Your task to perform on an android device: Clear the cart on bestbuy. Search for "jbl charge 4" on bestbuy, select the first entry, add it to the cart, then select checkout. Image 0: 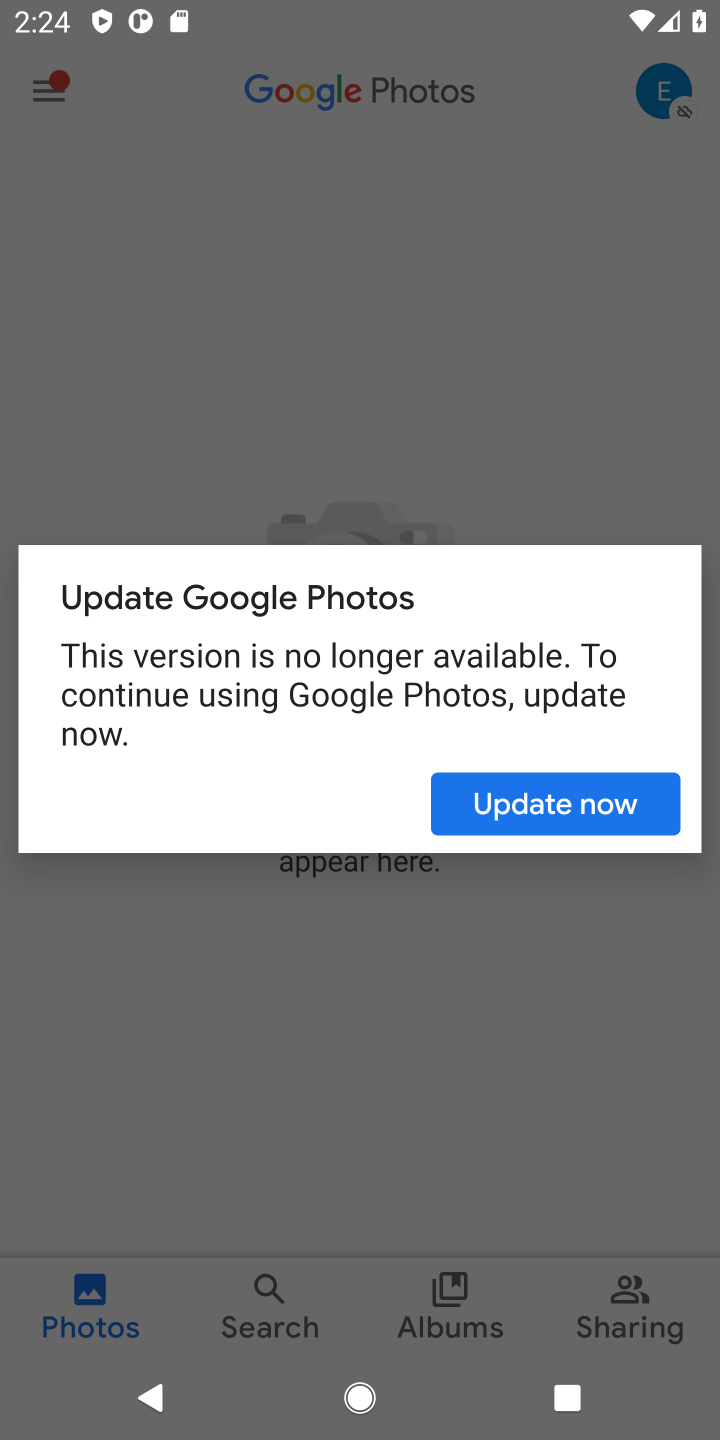
Step 0: press home button
Your task to perform on an android device: Clear the cart on bestbuy. Search for "jbl charge 4" on bestbuy, select the first entry, add it to the cart, then select checkout. Image 1: 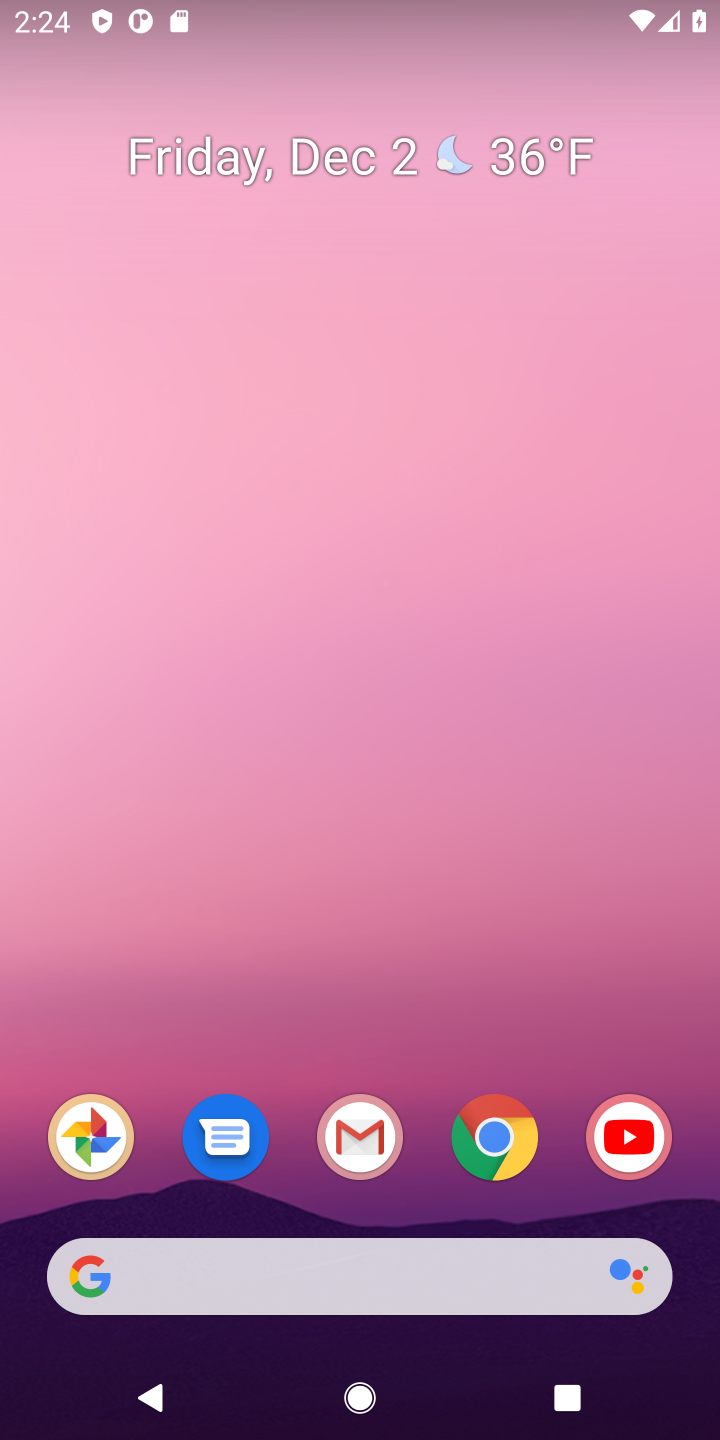
Step 1: drag from (265, 1283) to (277, 358)
Your task to perform on an android device: Clear the cart on bestbuy. Search for "jbl charge 4" on bestbuy, select the first entry, add it to the cart, then select checkout. Image 2: 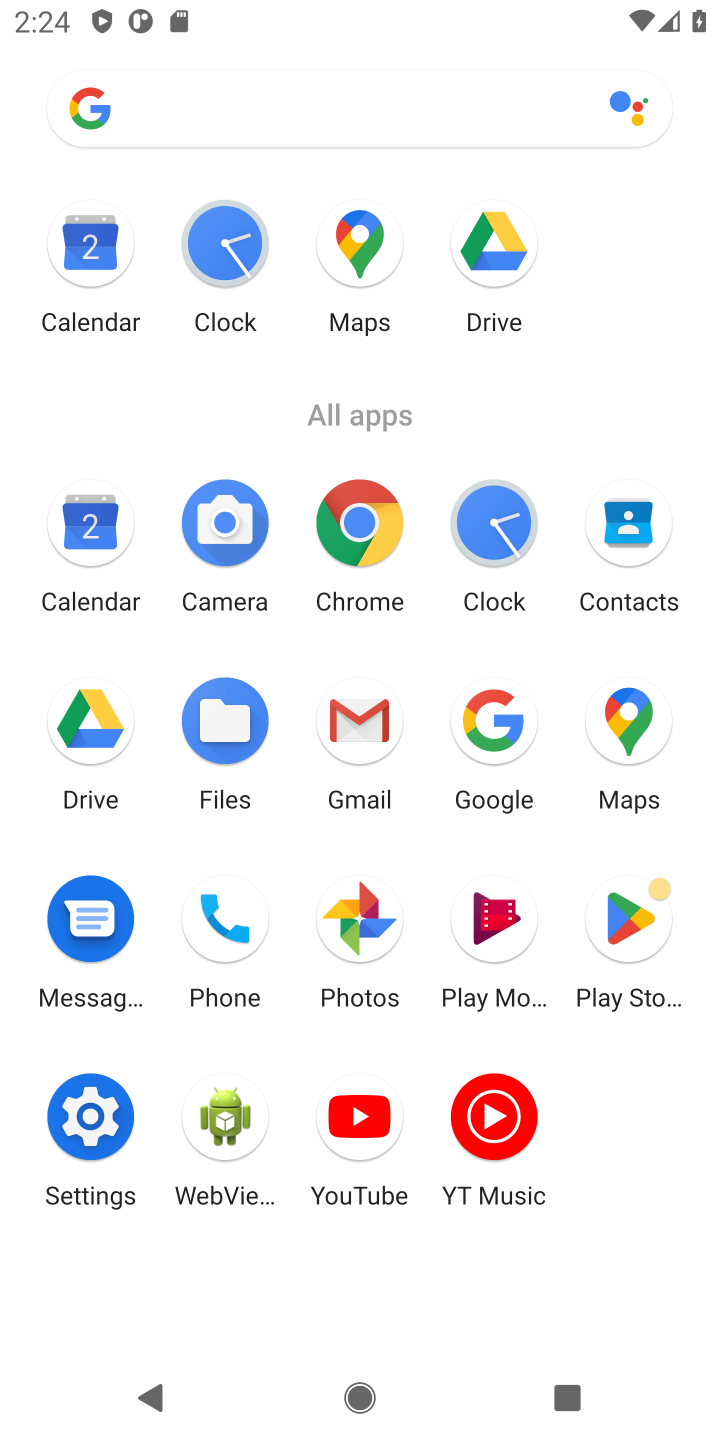
Step 2: click (502, 724)
Your task to perform on an android device: Clear the cart on bestbuy. Search for "jbl charge 4" on bestbuy, select the first entry, add it to the cart, then select checkout. Image 3: 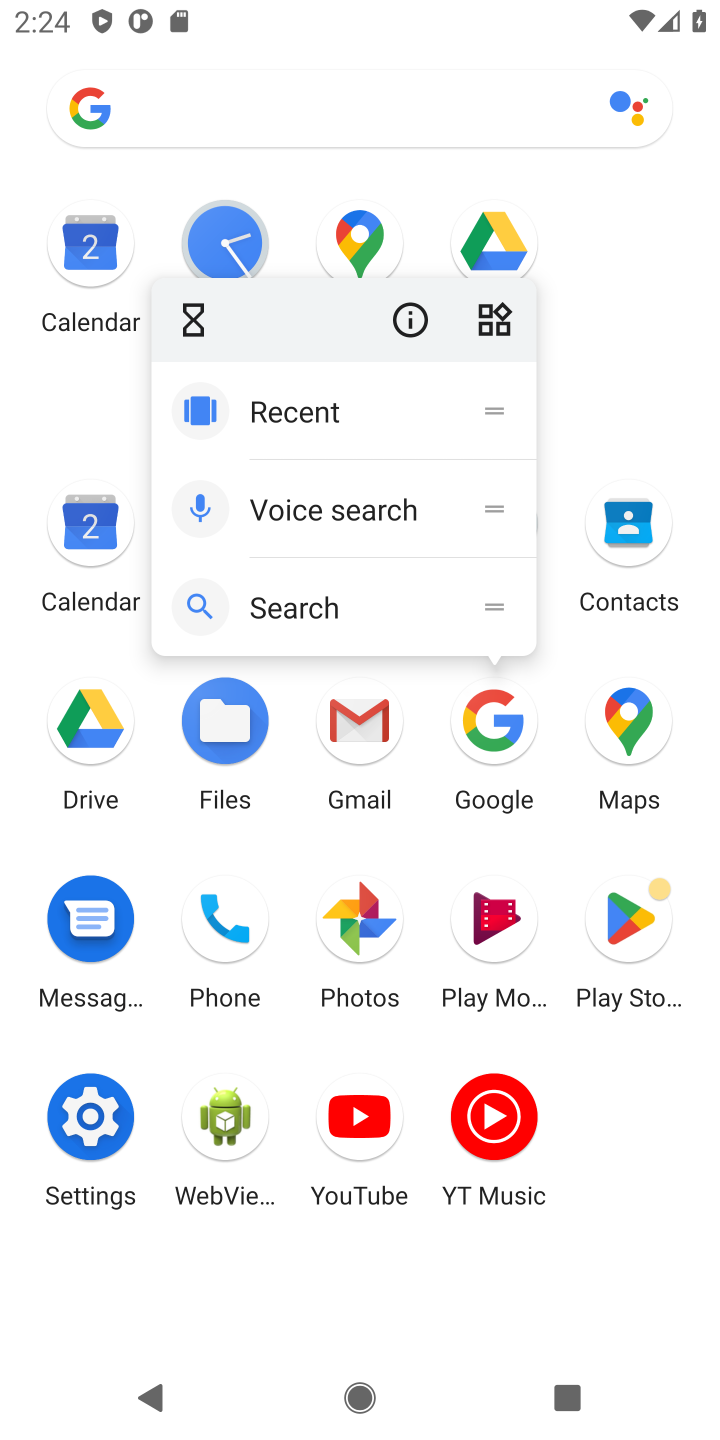
Step 3: click (486, 722)
Your task to perform on an android device: Clear the cart on bestbuy. Search for "jbl charge 4" on bestbuy, select the first entry, add it to the cart, then select checkout. Image 4: 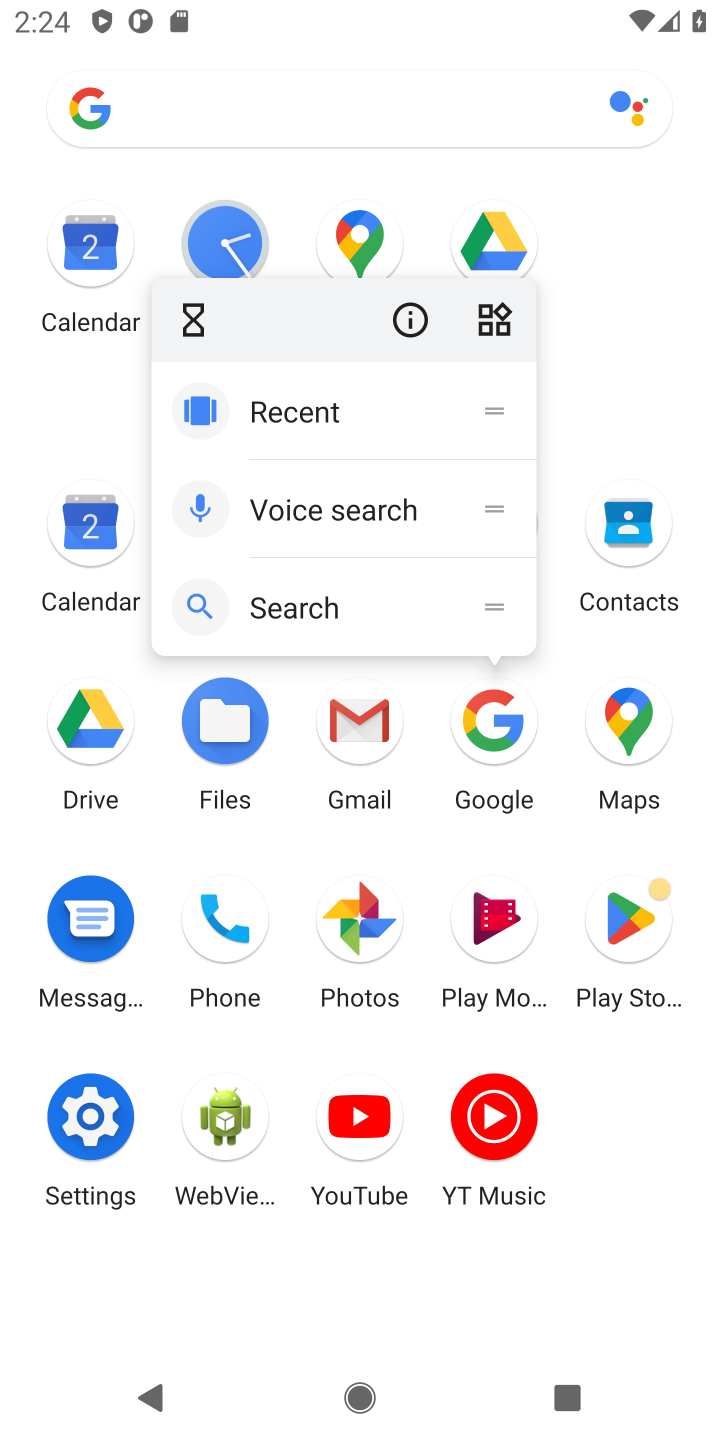
Step 4: click (486, 733)
Your task to perform on an android device: Clear the cart on bestbuy. Search for "jbl charge 4" on bestbuy, select the first entry, add it to the cart, then select checkout. Image 5: 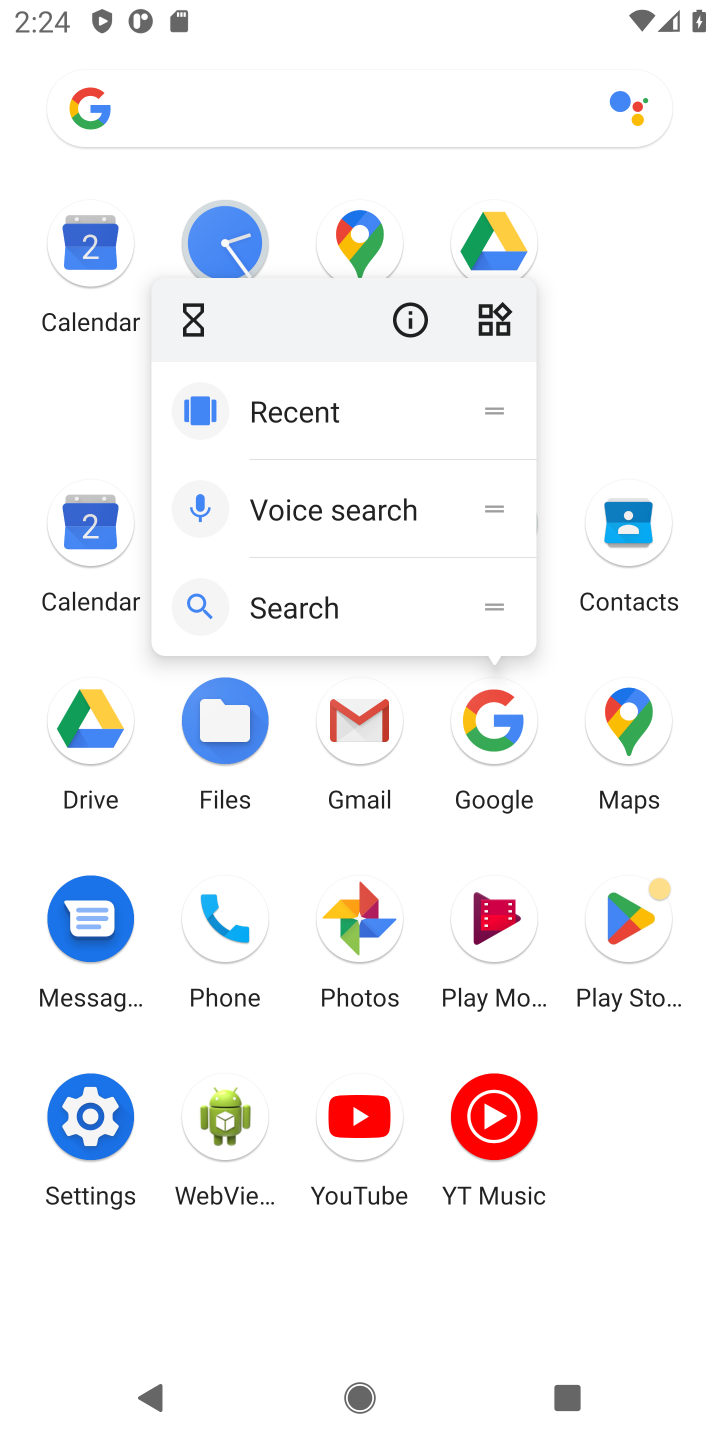
Step 5: click (486, 736)
Your task to perform on an android device: Clear the cart on bestbuy. Search for "jbl charge 4" on bestbuy, select the first entry, add it to the cart, then select checkout. Image 6: 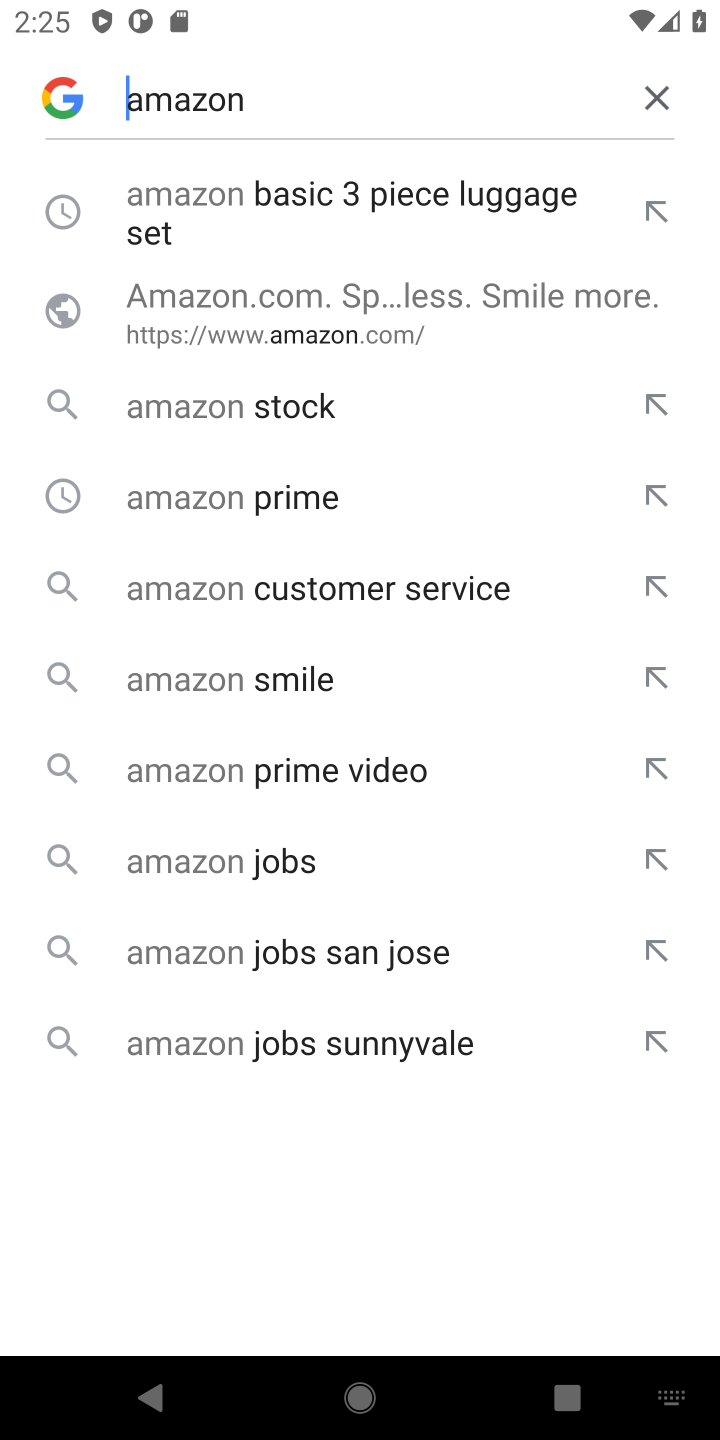
Step 6: click (656, 118)
Your task to perform on an android device: Clear the cart on bestbuy. Search for "jbl charge 4" on bestbuy, select the first entry, add it to the cart, then select checkout. Image 7: 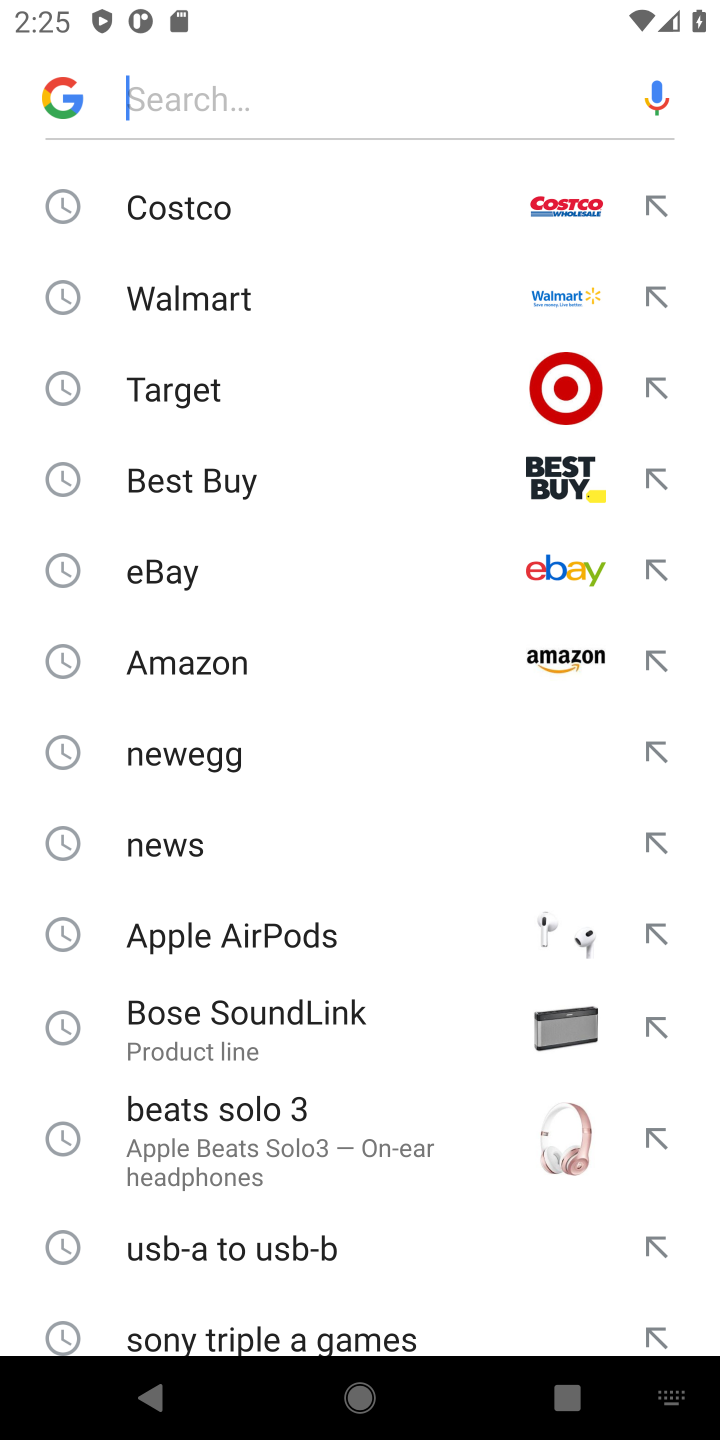
Step 7: click (234, 473)
Your task to perform on an android device: Clear the cart on bestbuy. Search for "jbl charge 4" on bestbuy, select the first entry, add it to the cart, then select checkout. Image 8: 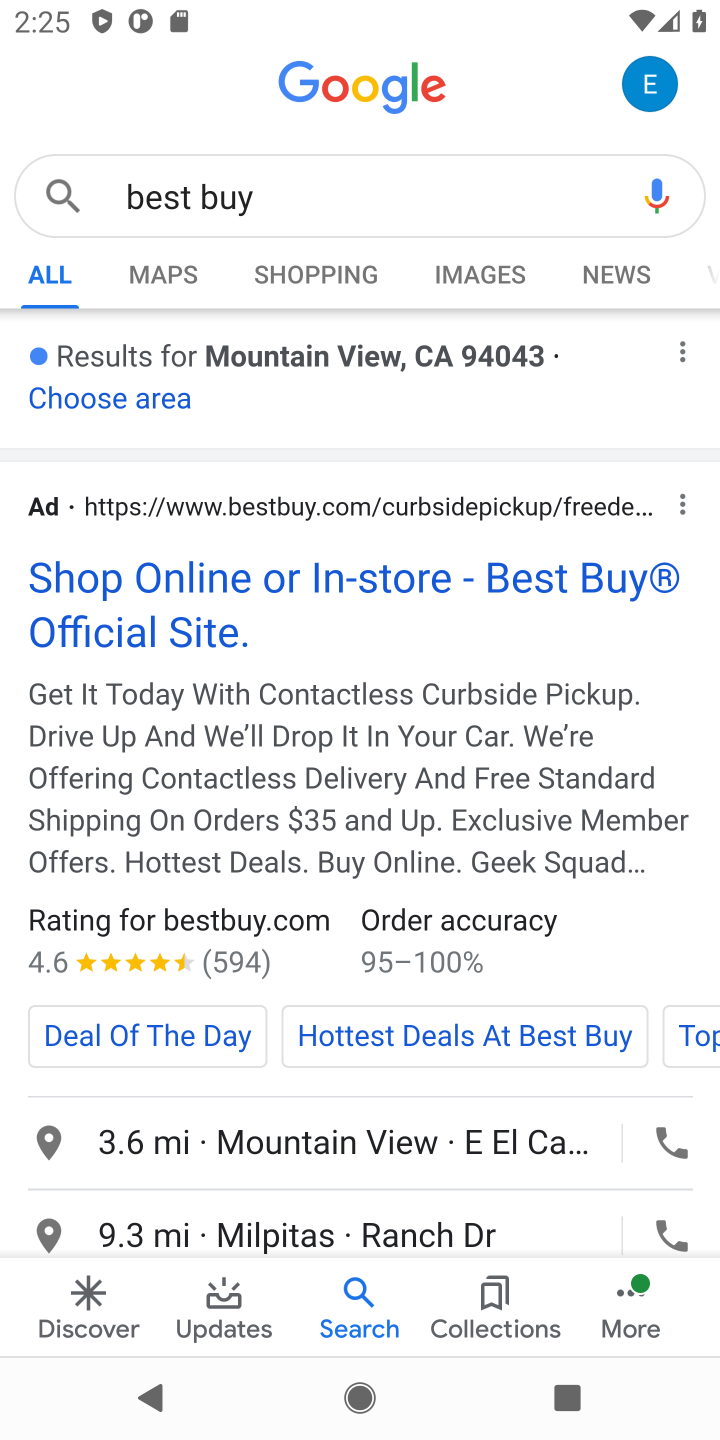
Step 8: click (219, 624)
Your task to perform on an android device: Clear the cart on bestbuy. Search for "jbl charge 4" on bestbuy, select the first entry, add it to the cart, then select checkout. Image 9: 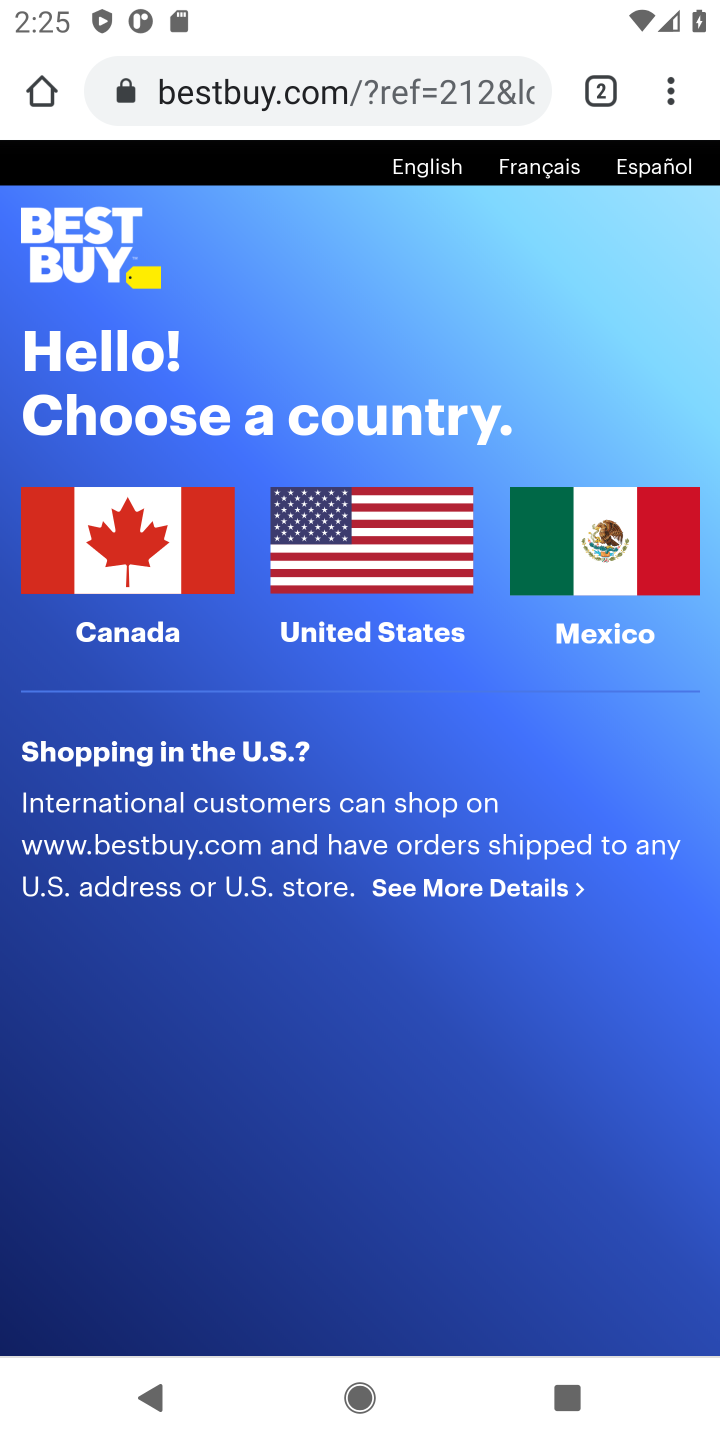
Step 9: click (380, 580)
Your task to perform on an android device: Clear the cart on bestbuy. Search for "jbl charge 4" on bestbuy, select the first entry, add it to the cart, then select checkout. Image 10: 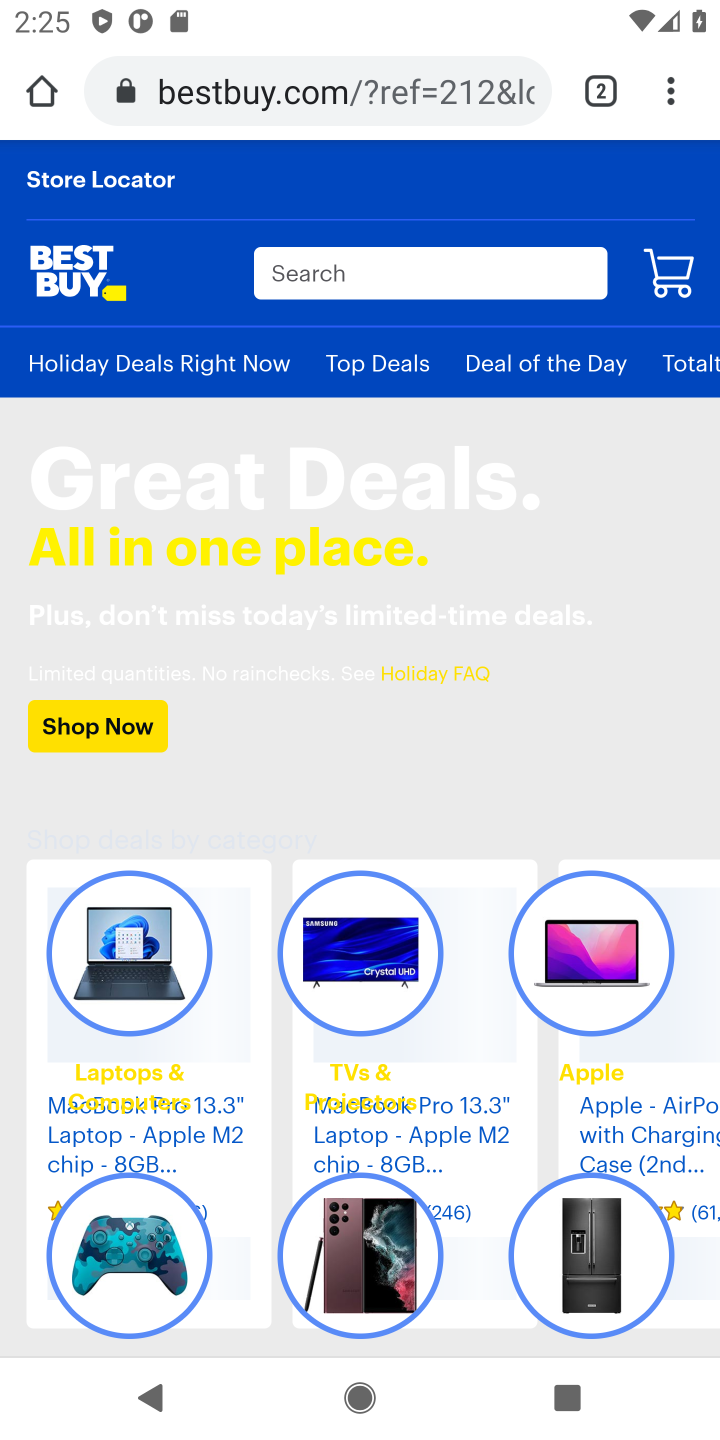
Step 10: click (285, 269)
Your task to perform on an android device: Clear the cart on bestbuy. Search for "jbl charge 4" on bestbuy, select the first entry, add it to the cart, then select checkout. Image 11: 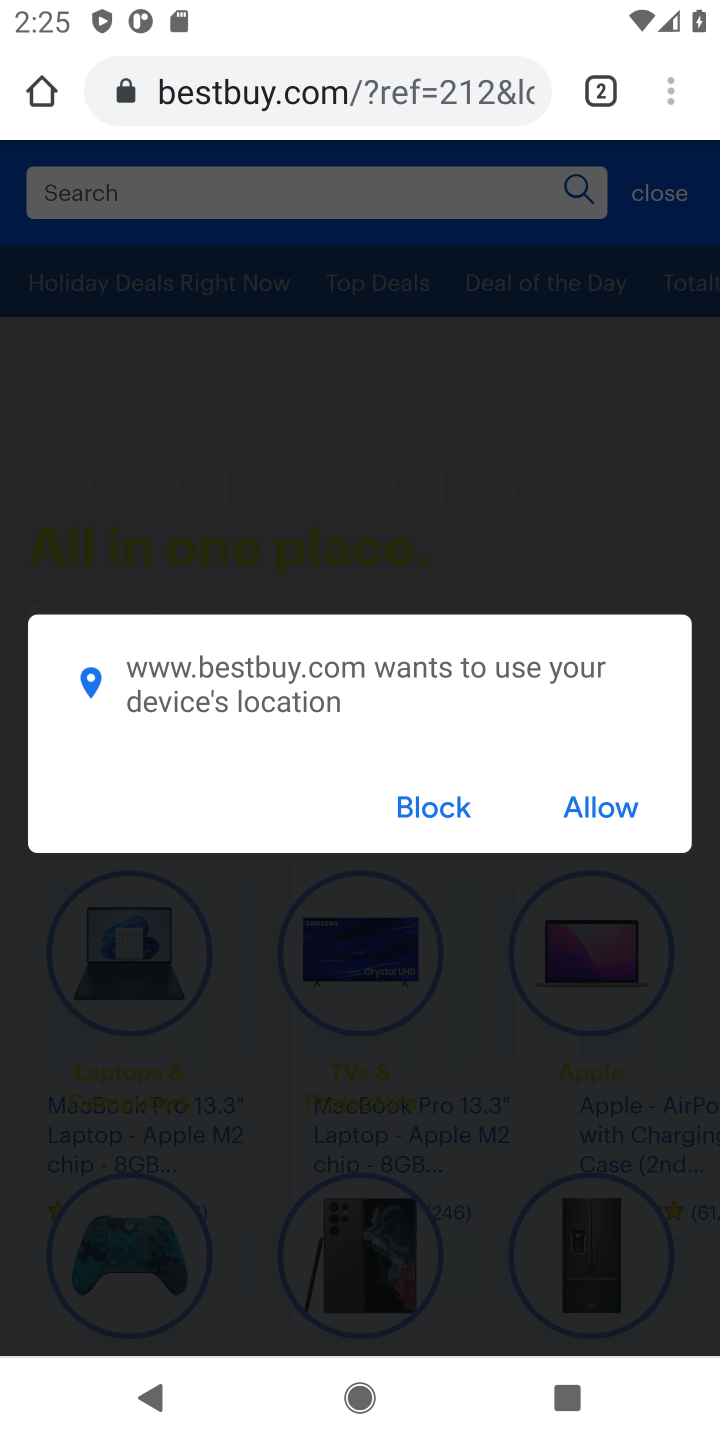
Step 11: click (634, 814)
Your task to perform on an android device: Clear the cart on bestbuy. Search for "jbl charge 4" on bestbuy, select the first entry, add it to the cart, then select checkout. Image 12: 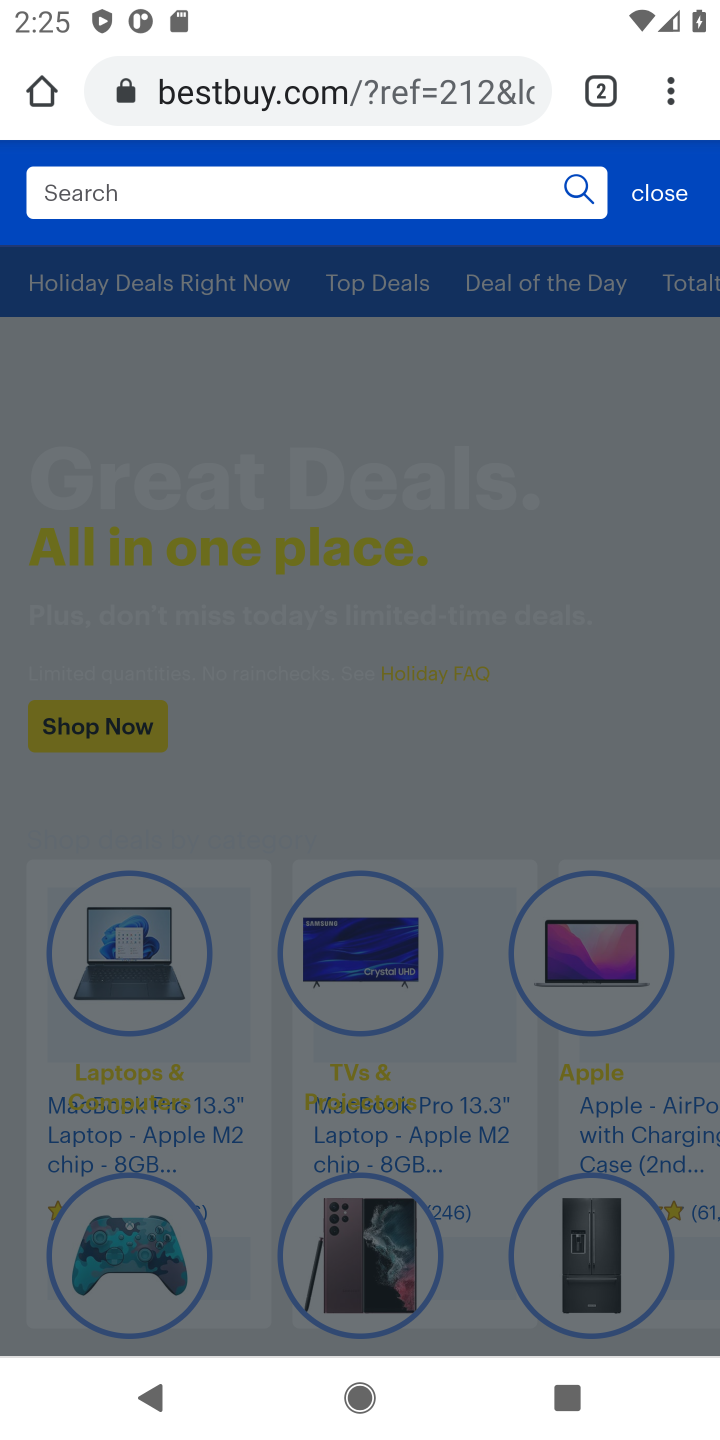
Step 12: click (50, 200)
Your task to perform on an android device: Clear the cart on bestbuy. Search for "jbl charge 4" on bestbuy, select the first entry, add it to the cart, then select checkout. Image 13: 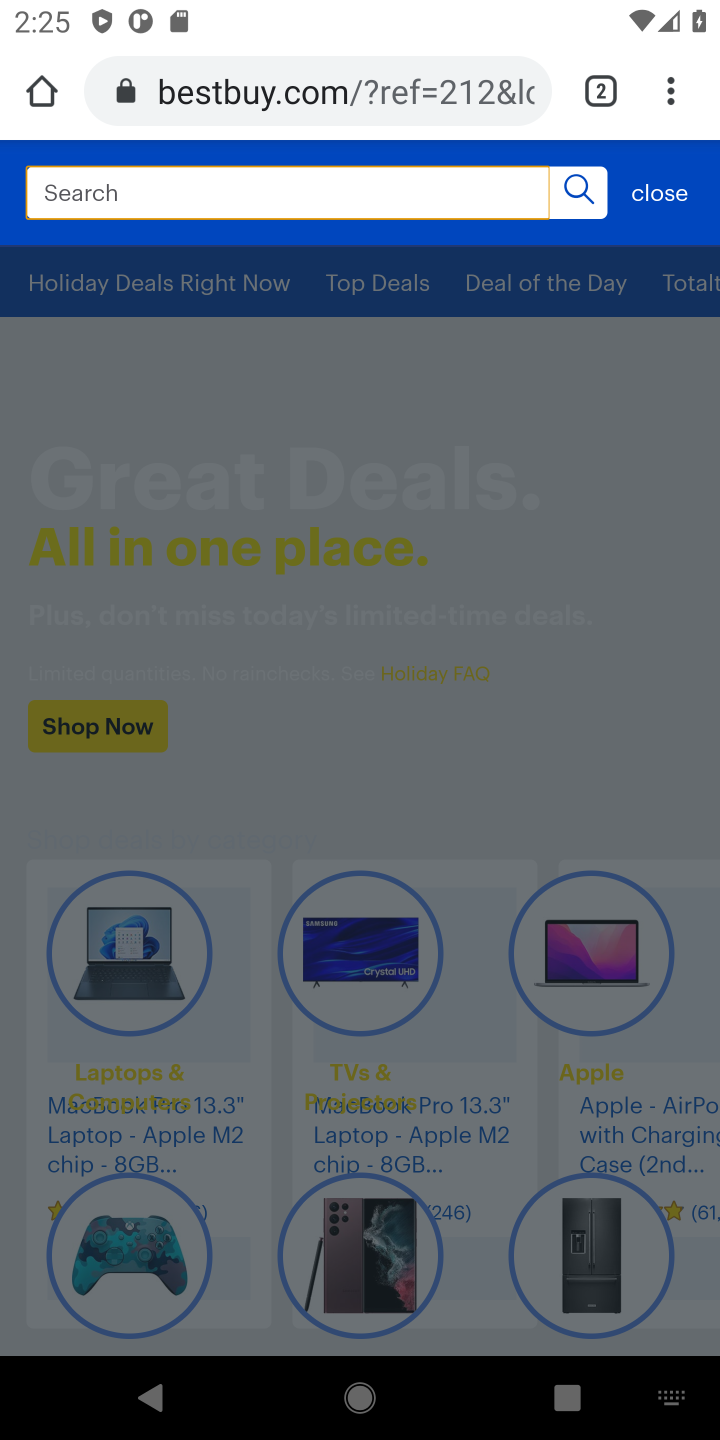
Step 13: type "jbl charge 4"
Your task to perform on an android device: Clear the cart on bestbuy. Search for "jbl charge 4" on bestbuy, select the first entry, add it to the cart, then select checkout. Image 14: 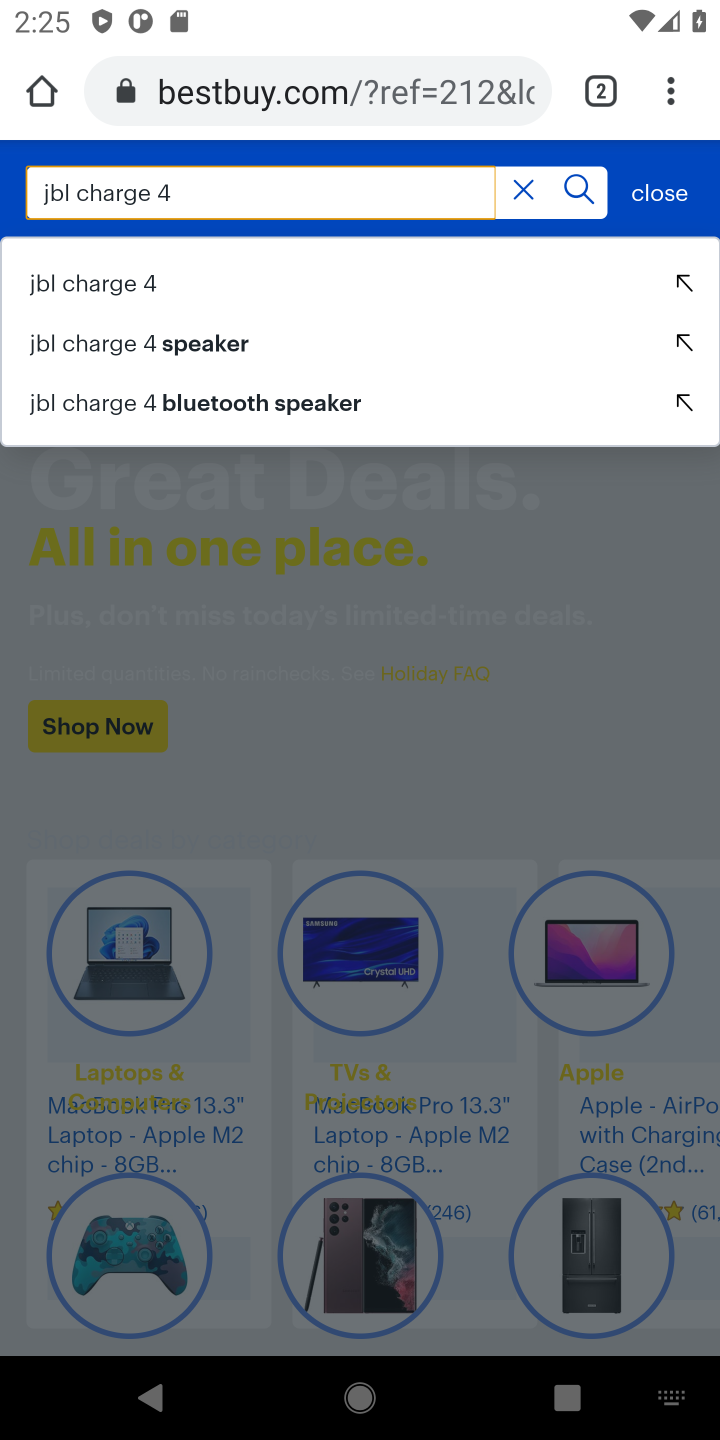
Step 14: click (110, 282)
Your task to perform on an android device: Clear the cart on bestbuy. Search for "jbl charge 4" on bestbuy, select the first entry, add it to the cart, then select checkout. Image 15: 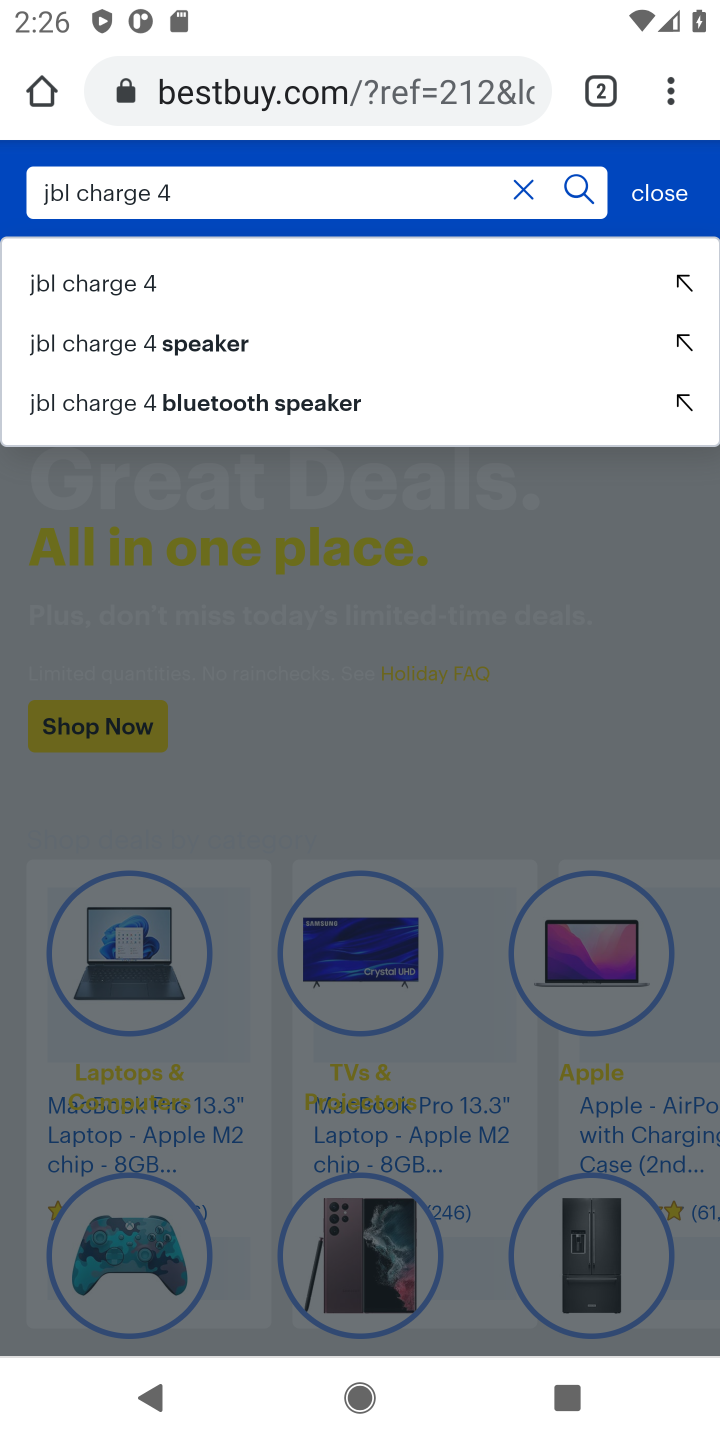
Step 15: click (97, 286)
Your task to perform on an android device: Clear the cart on bestbuy. Search for "jbl charge 4" on bestbuy, select the first entry, add it to the cart, then select checkout. Image 16: 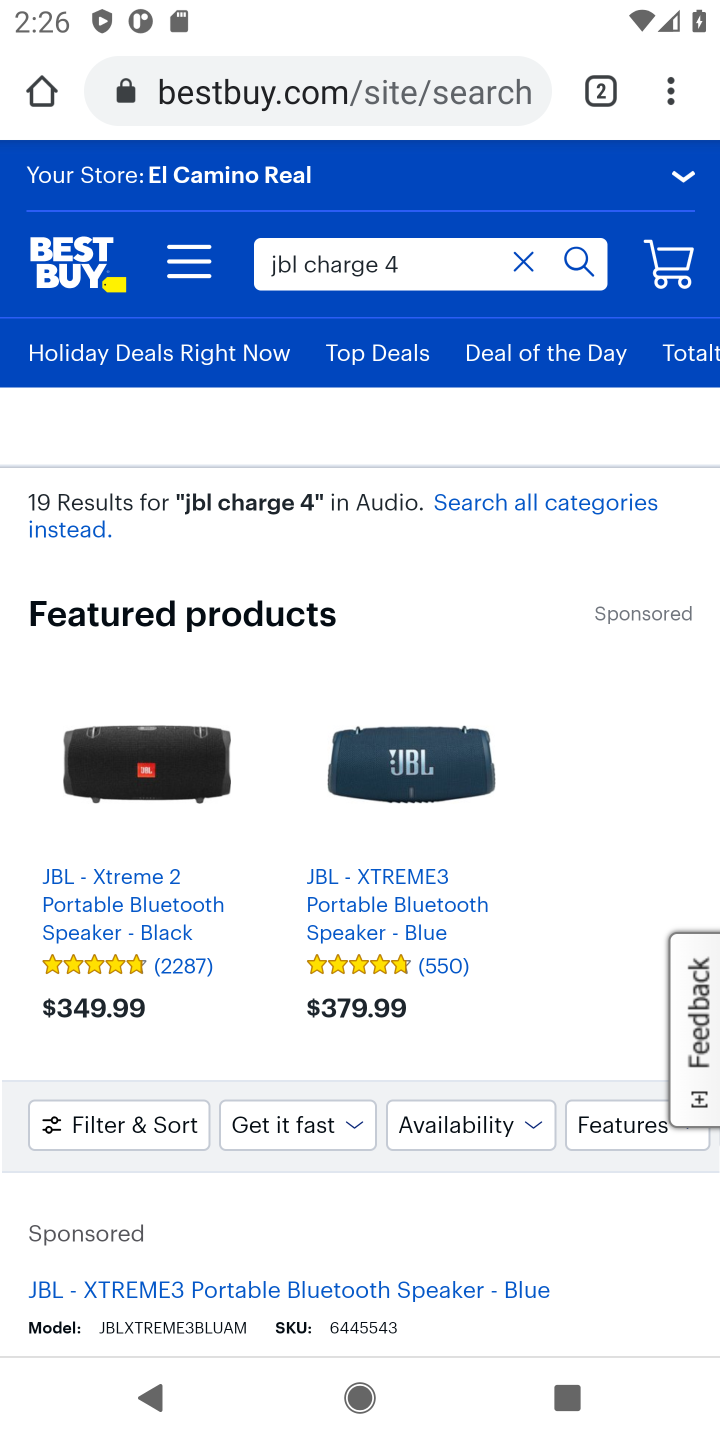
Step 16: drag from (248, 1300) to (233, 712)
Your task to perform on an android device: Clear the cart on bestbuy. Search for "jbl charge 4" on bestbuy, select the first entry, add it to the cart, then select checkout. Image 17: 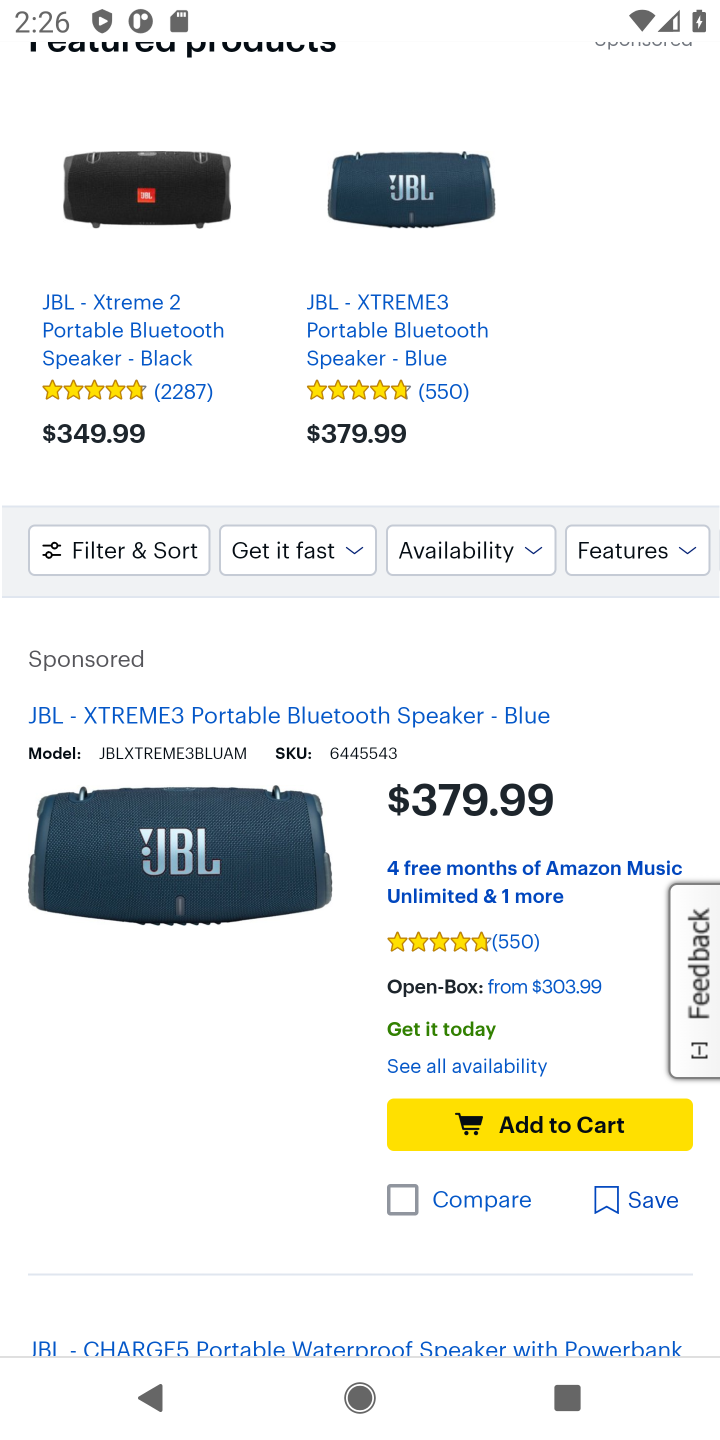
Step 17: click (543, 1116)
Your task to perform on an android device: Clear the cart on bestbuy. Search for "jbl charge 4" on bestbuy, select the first entry, add it to the cart, then select checkout. Image 18: 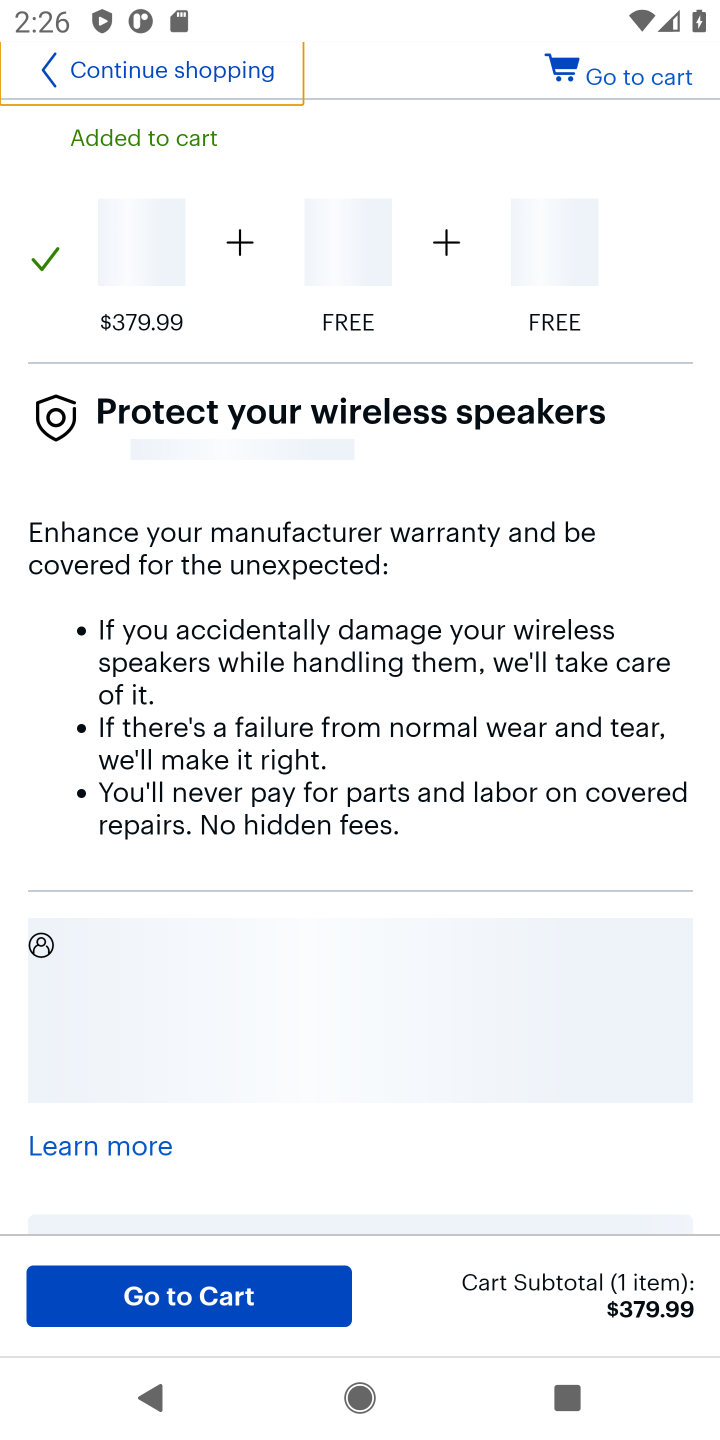
Step 18: click (210, 1292)
Your task to perform on an android device: Clear the cart on bestbuy. Search for "jbl charge 4" on bestbuy, select the first entry, add it to the cart, then select checkout. Image 19: 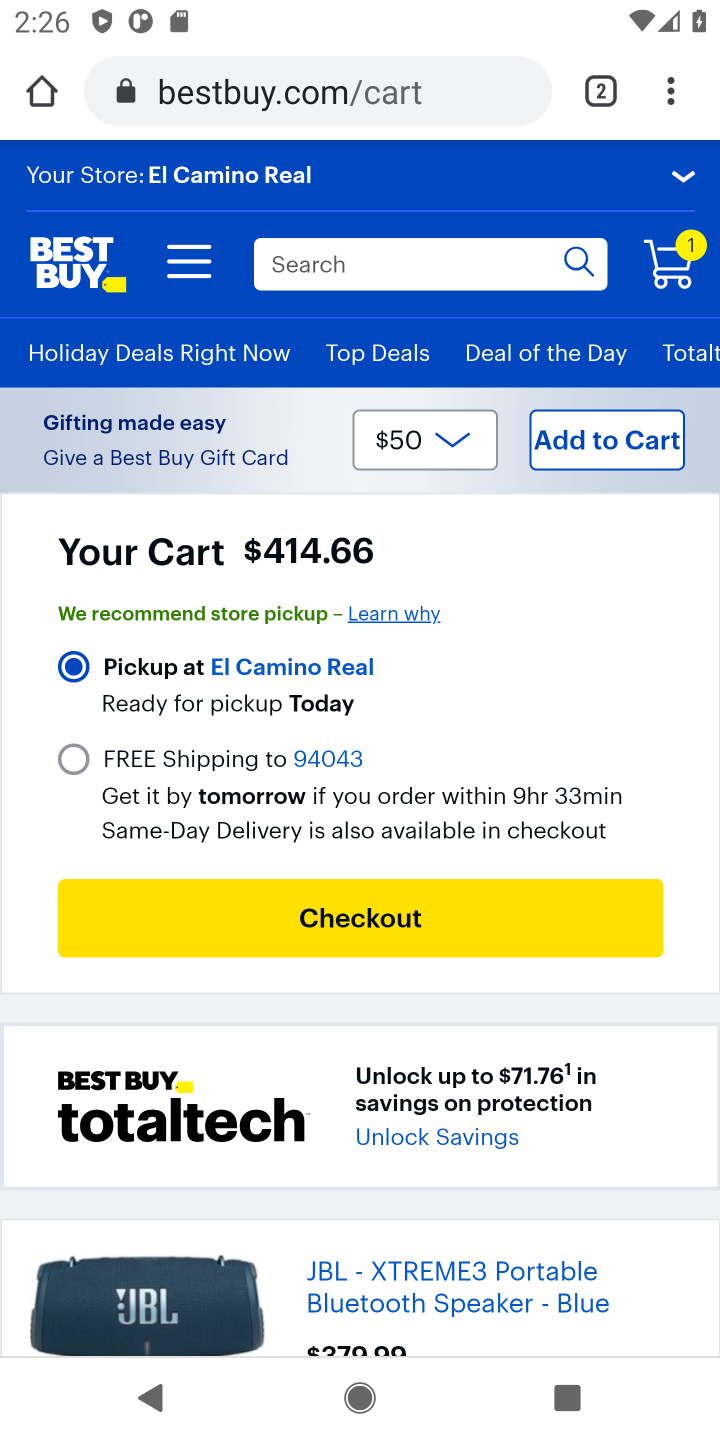
Step 19: click (381, 917)
Your task to perform on an android device: Clear the cart on bestbuy. Search for "jbl charge 4" on bestbuy, select the first entry, add it to the cart, then select checkout. Image 20: 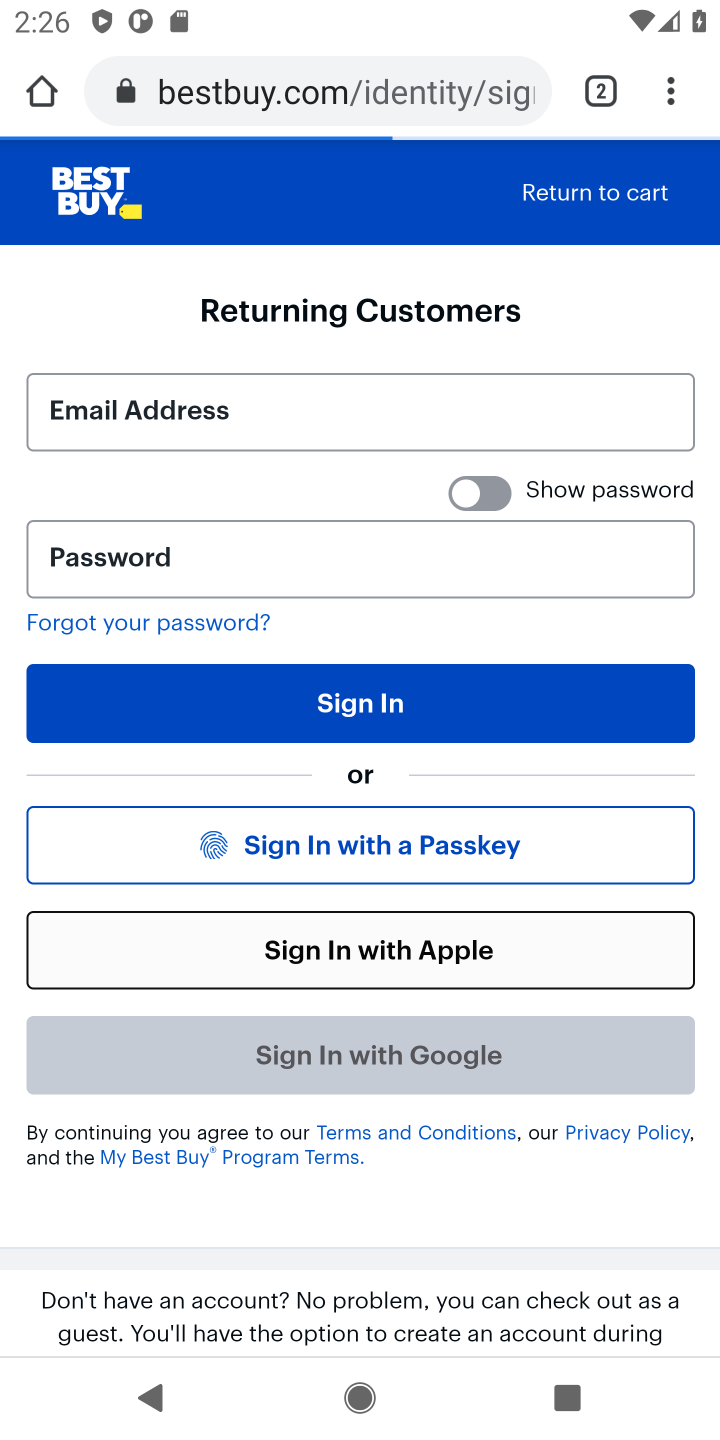
Step 20: task complete